Your task to perform on an android device: Go to Yahoo.com Image 0: 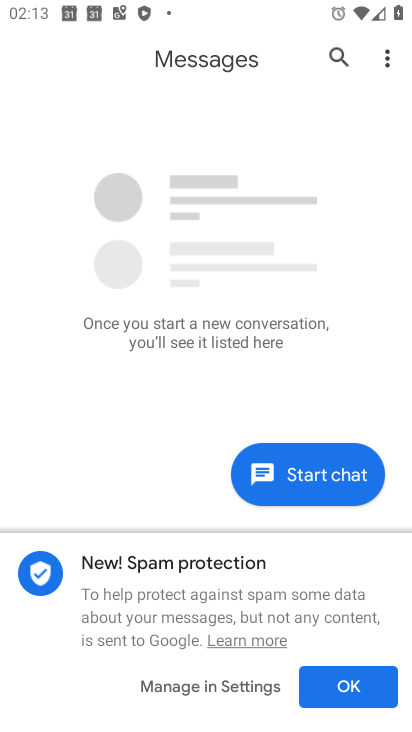
Step 0: press home button
Your task to perform on an android device: Go to Yahoo.com Image 1: 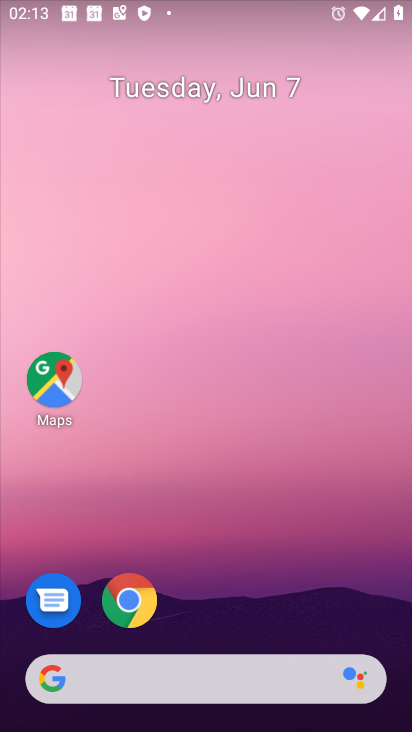
Step 1: click (134, 602)
Your task to perform on an android device: Go to Yahoo.com Image 2: 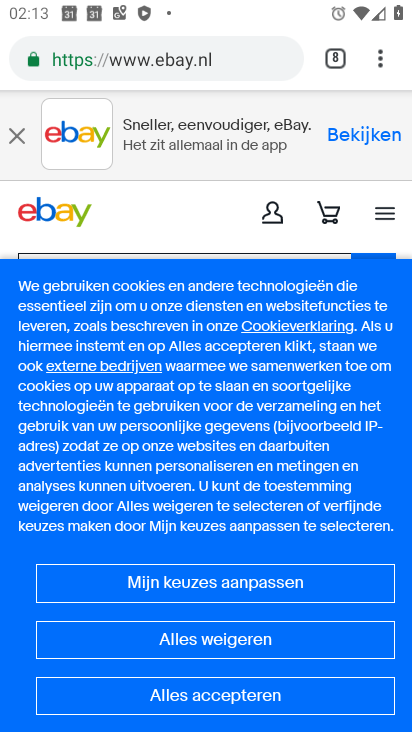
Step 2: click (380, 63)
Your task to perform on an android device: Go to Yahoo.com Image 3: 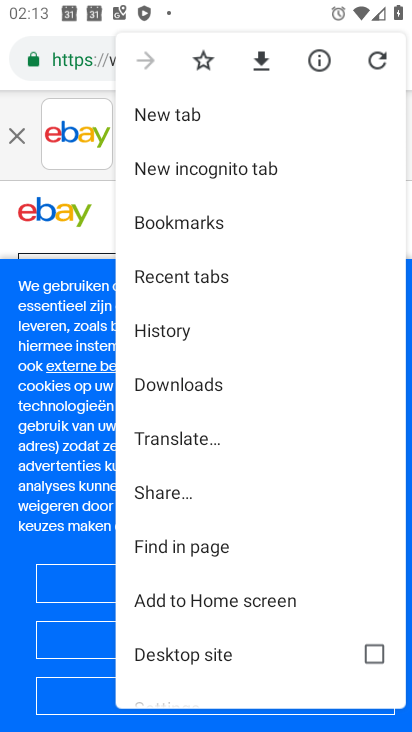
Step 3: click (178, 110)
Your task to perform on an android device: Go to Yahoo.com Image 4: 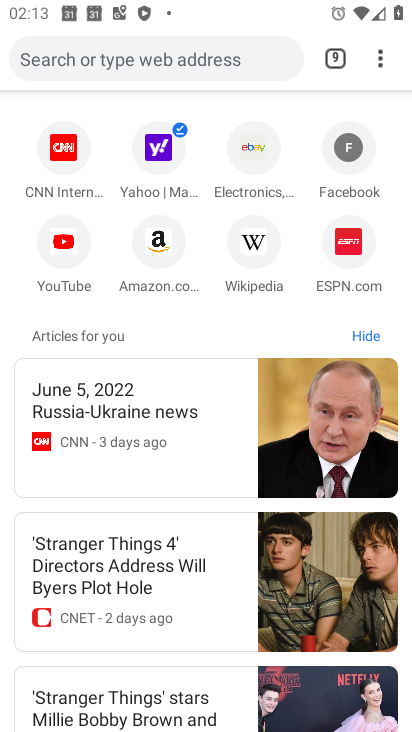
Step 4: click (148, 164)
Your task to perform on an android device: Go to Yahoo.com Image 5: 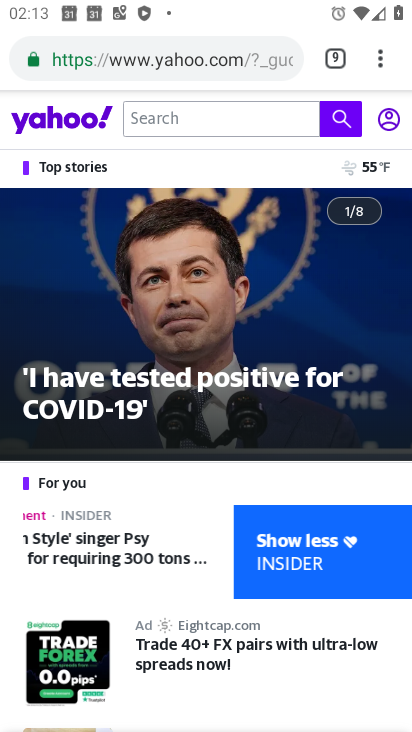
Step 5: task complete